Your task to perform on an android device: delete browsing data in the chrome app Image 0: 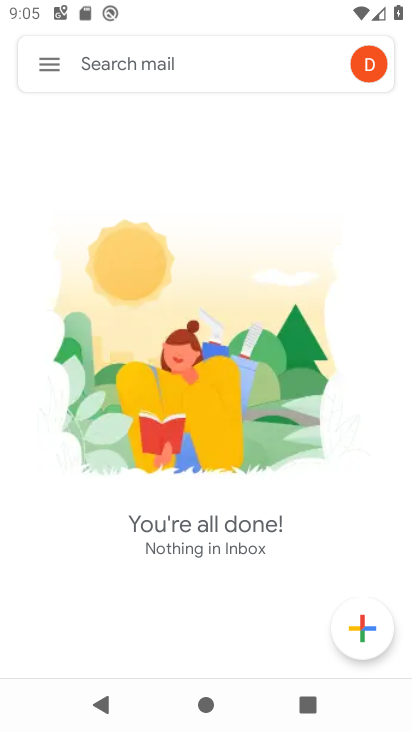
Step 0: press home button
Your task to perform on an android device: delete browsing data in the chrome app Image 1: 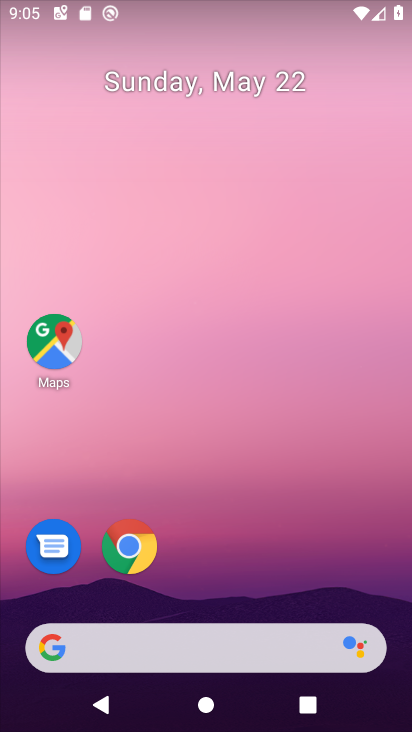
Step 1: drag from (362, 577) to (356, 150)
Your task to perform on an android device: delete browsing data in the chrome app Image 2: 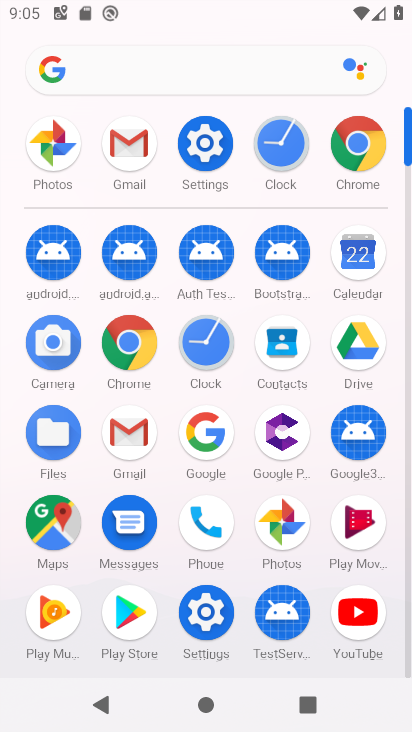
Step 2: click (145, 345)
Your task to perform on an android device: delete browsing data in the chrome app Image 3: 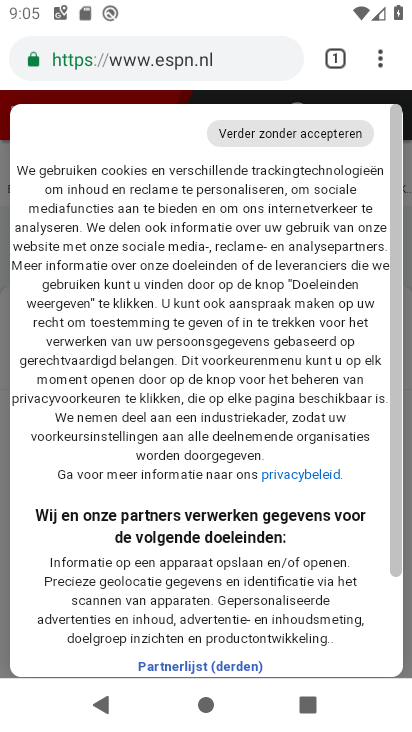
Step 3: click (380, 65)
Your task to perform on an android device: delete browsing data in the chrome app Image 4: 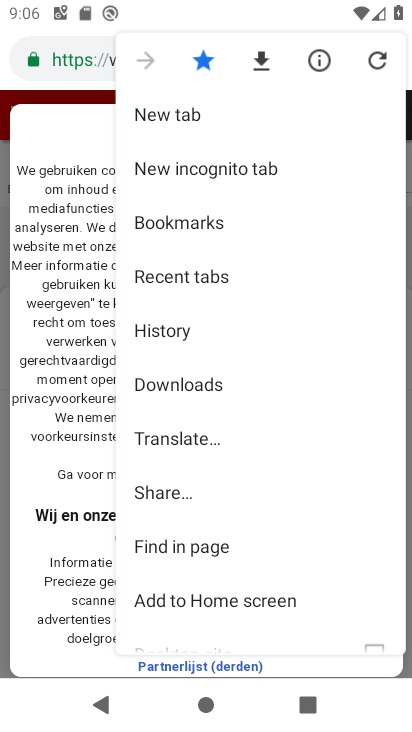
Step 4: drag from (307, 545) to (317, 378)
Your task to perform on an android device: delete browsing data in the chrome app Image 5: 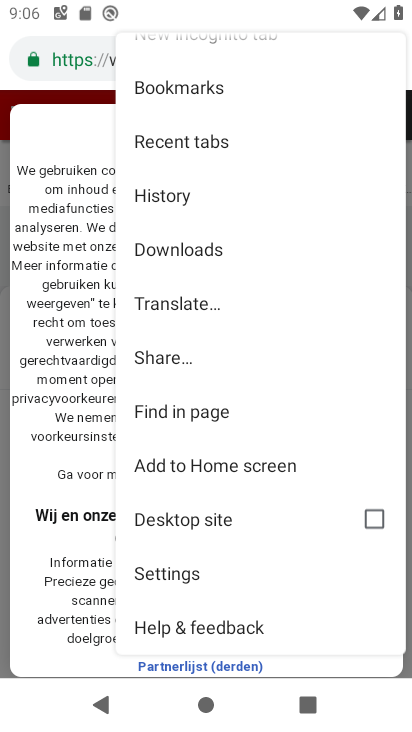
Step 5: drag from (308, 592) to (306, 390)
Your task to perform on an android device: delete browsing data in the chrome app Image 6: 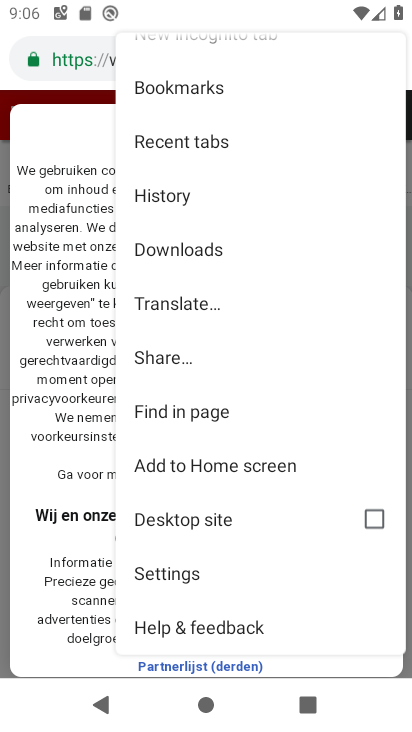
Step 6: click (180, 586)
Your task to perform on an android device: delete browsing data in the chrome app Image 7: 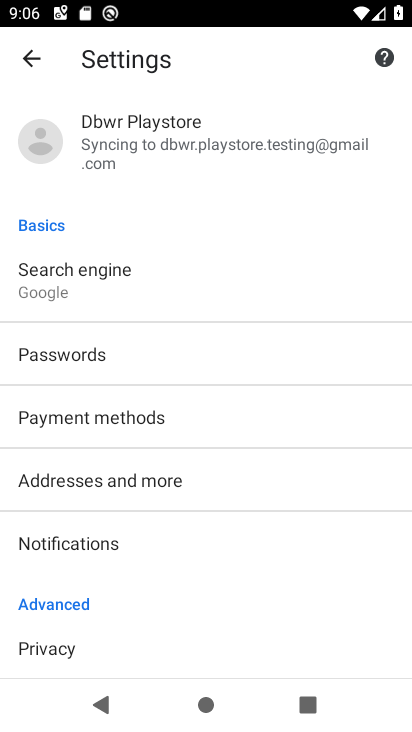
Step 7: drag from (301, 604) to (309, 446)
Your task to perform on an android device: delete browsing data in the chrome app Image 8: 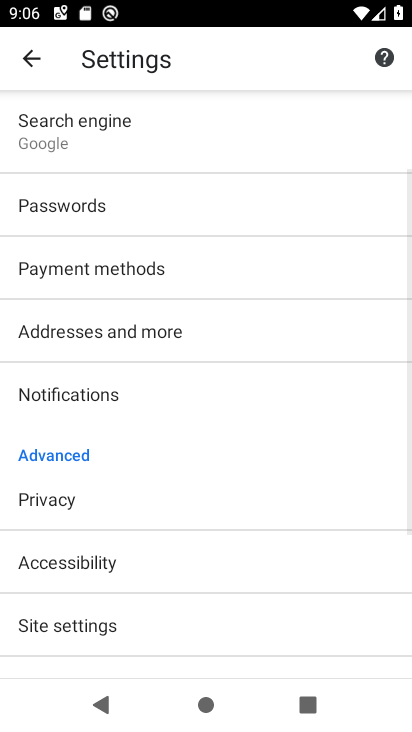
Step 8: drag from (301, 607) to (293, 442)
Your task to perform on an android device: delete browsing data in the chrome app Image 9: 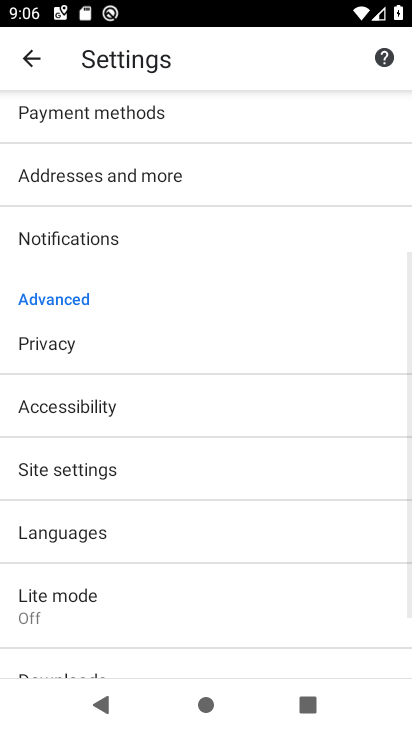
Step 9: drag from (327, 603) to (319, 438)
Your task to perform on an android device: delete browsing data in the chrome app Image 10: 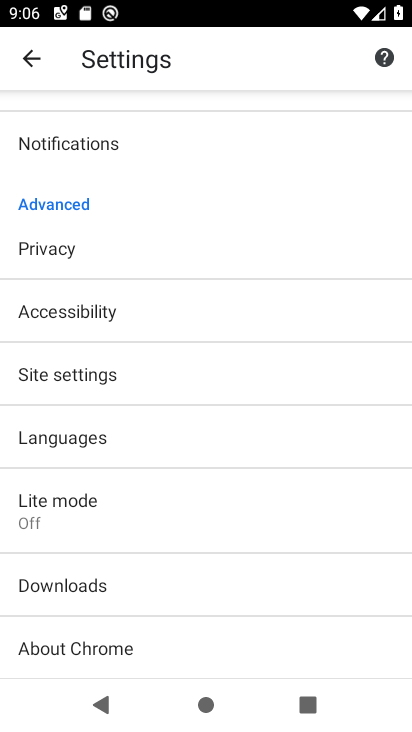
Step 10: drag from (293, 602) to (292, 452)
Your task to perform on an android device: delete browsing data in the chrome app Image 11: 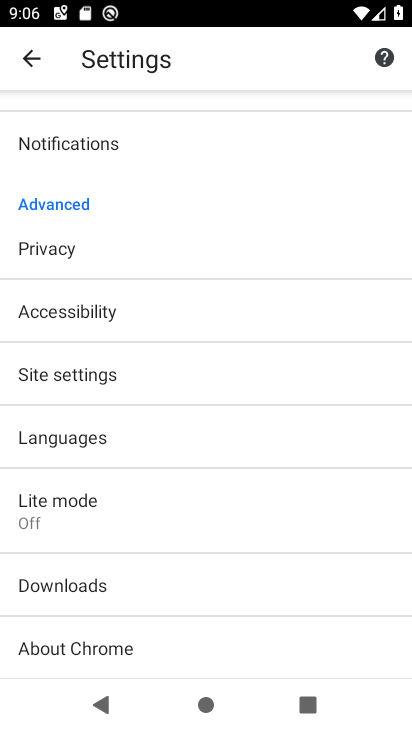
Step 11: drag from (252, 353) to (234, 557)
Your task to perform on an android device: delete browsing data in the chrome app Image 12: 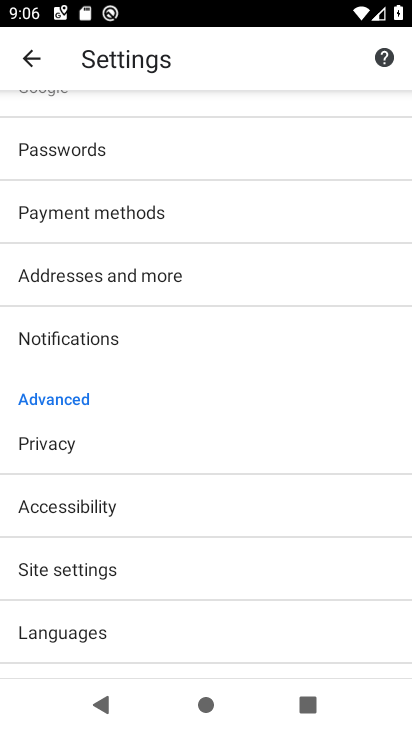
Step 12: click (93, 449)
Your task to perform on an android device: delete browsing data in the chrome app Image 13: 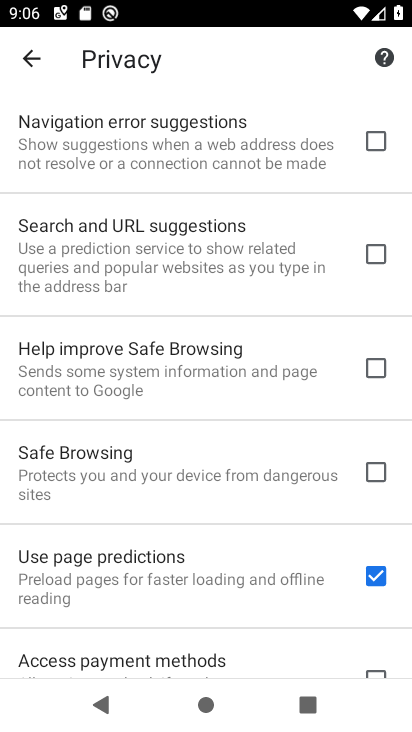
Step 13: drag from (270, 628) to (271, 461)
Your task to perform on an android device: delete browsing data in the chrome app Image 14: 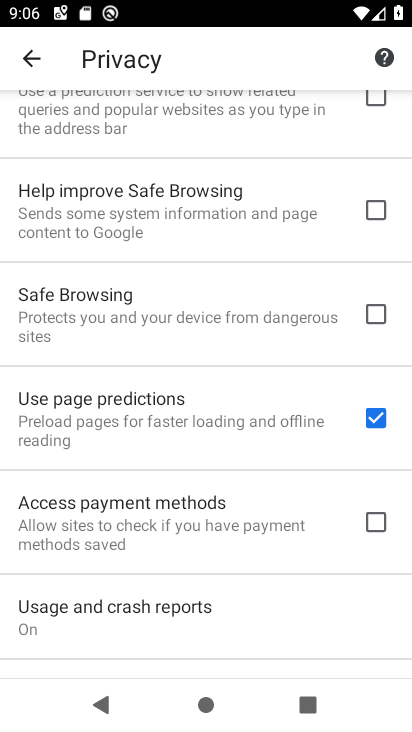
Step 14: drag from (299, 629) to (282, 485)
Your task to perform on an android device: delete browsing data in the chrome app Image 15: 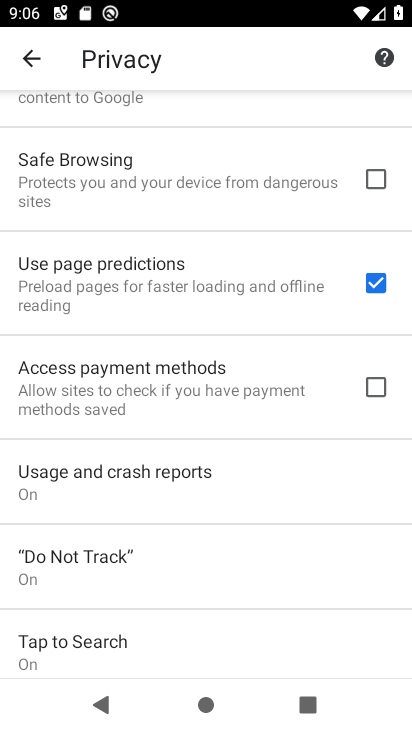
Step 15: drag from (293, 643) to (292, 486)
Your task to perform on an android device: delete browsing data in the chrome app Image 16: 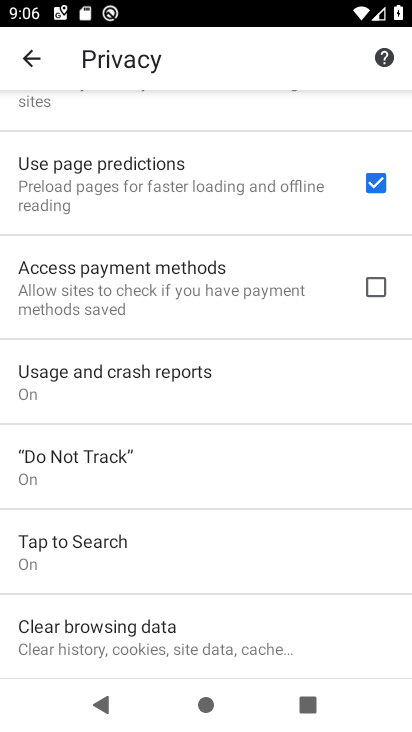
Step 16: click (232, 641)
Your task to perform on an android device: delete browsing data in the chrome app Image 17: 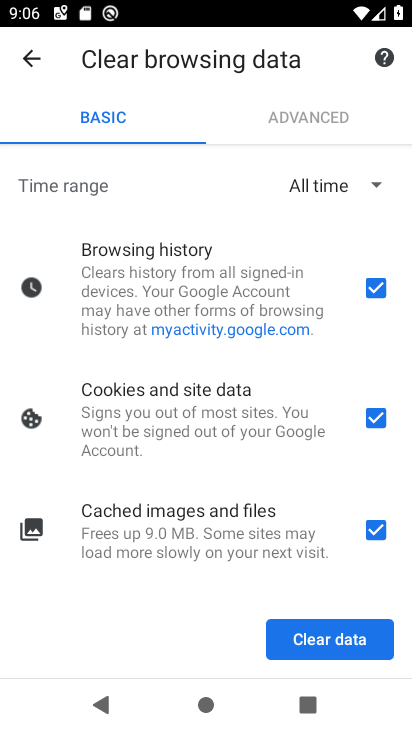
Step 17: click (334, 643)
Your task to perform on an android device: delete browsing data in the chrome app Image 18: 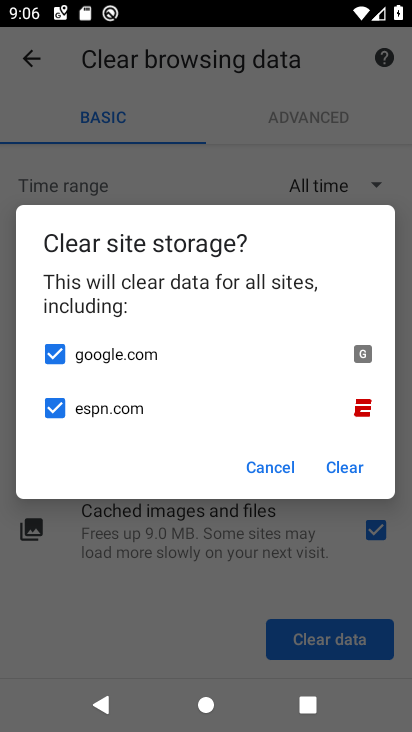
Step 18: click (326, 466)
Your task to perform on an android device: delete browsing data in the chrome app Image 19: 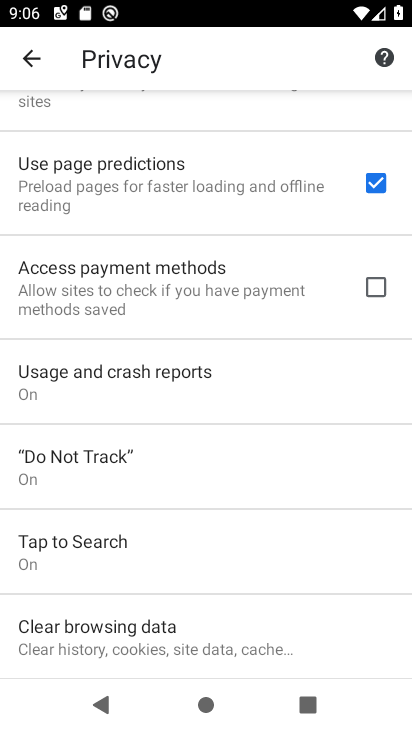
Step 19: task complete